Your task to perform on an android device: check the backup settings in the google photos Image 0: 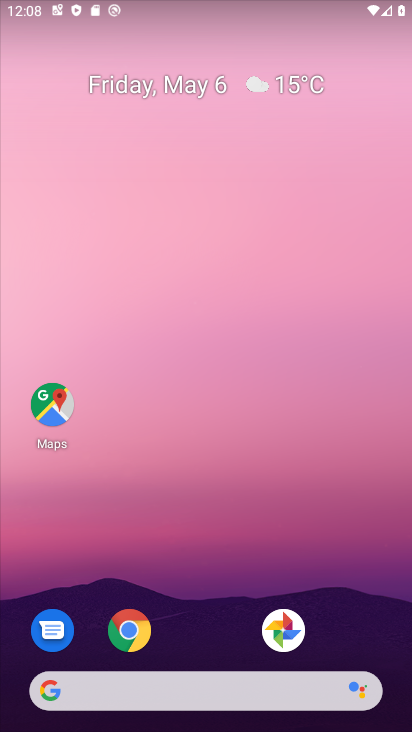
Step 0: drag from (361, 599) to (340, 70)
Your task to perform on an android device: check the backup settings in the google photos Image 1: 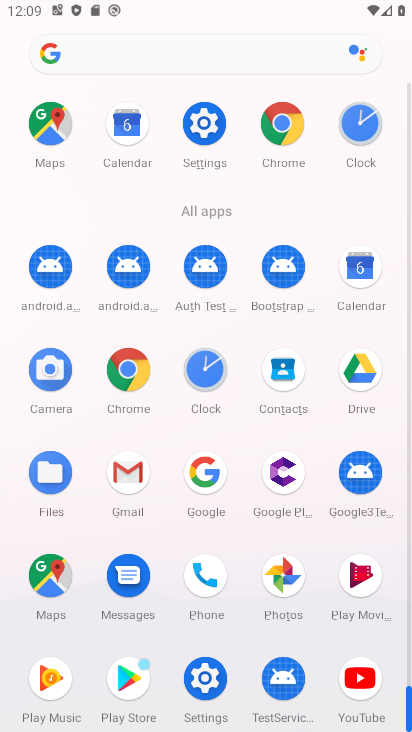
Step 1: click (281, 560)
Your task to perform on an android device: check the backup settings in the google photos Image 2: 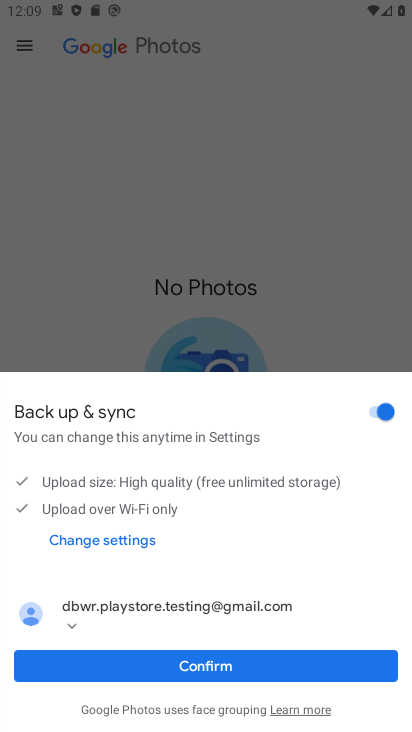
Step 2: click (298, 669)
Your task to perform on an android device: check the backup settings in the google photos Image 3: 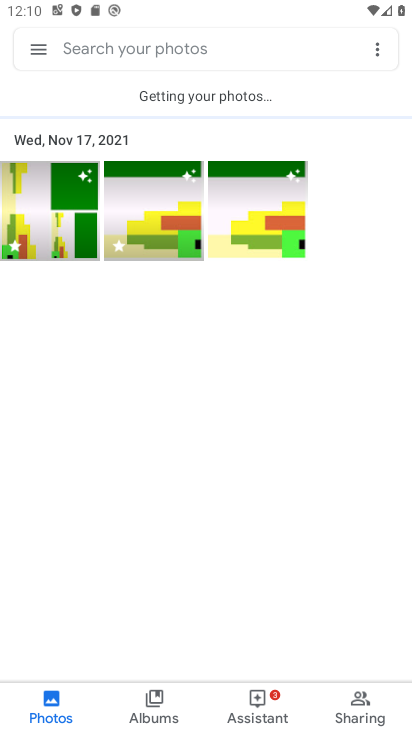
Step 3: click (373, 45)
Your task to perform on an android device: check the backup settings in the google photos Image 4: 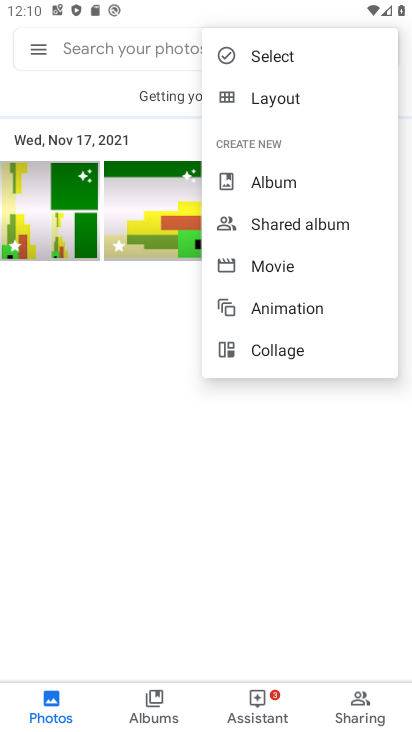
Step 4: click (43, 45)
Your task to perform on an android device: check the backup settings in the google photos Image 5: 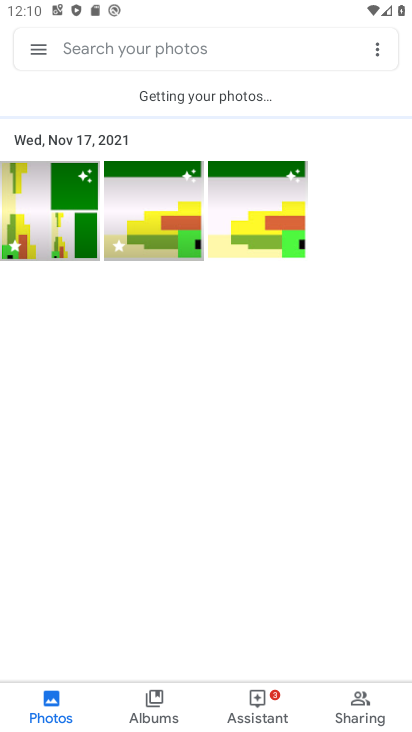
Step 5: click (43, 45)
Your task to perform on an android device: check the backup settings in the google photos Image 6: 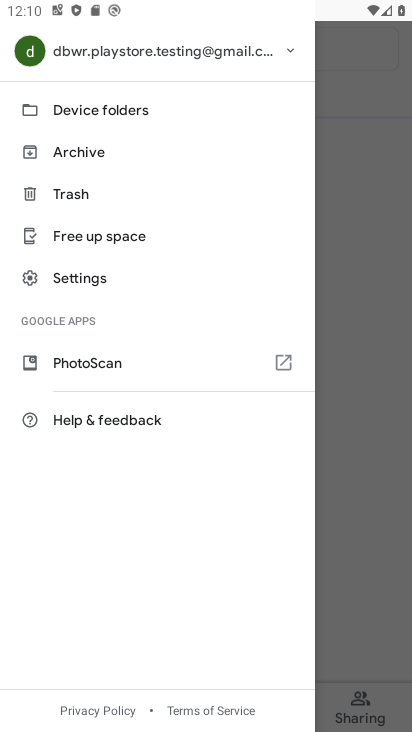
Step 6: click (94, 275)
Your task to perform on an android device: check the backup settings in the google photos Image 7: 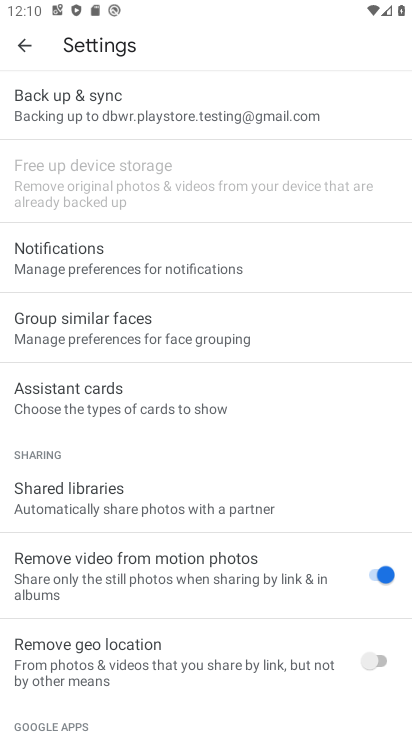
Step 7: click (200, 118)
Your task to perform on an android device: check the backup settings in the google photos Image 8: 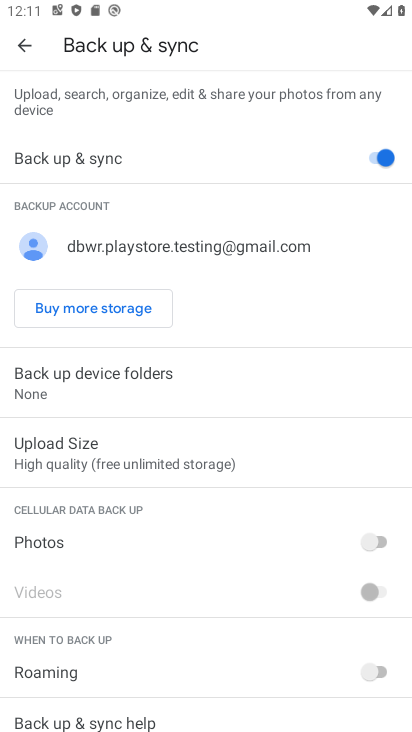
Step 8: task complete